Your task to perform on an android device: change keyboard looks Image 0: 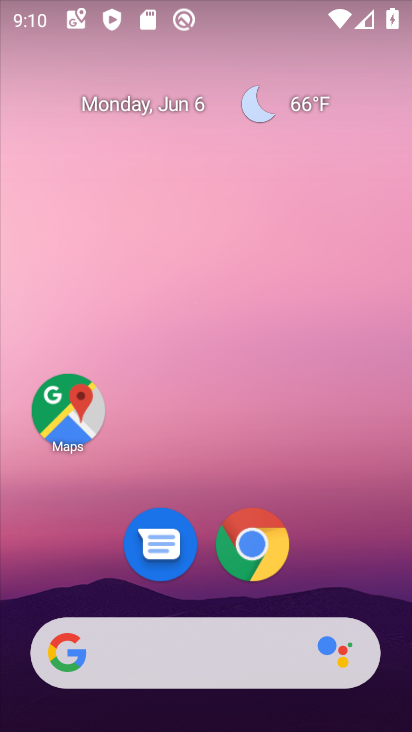
Step 0: drag from (212, 583) to (245, 169)
Your task to perform on an android device: change keyboard looks Image 1: 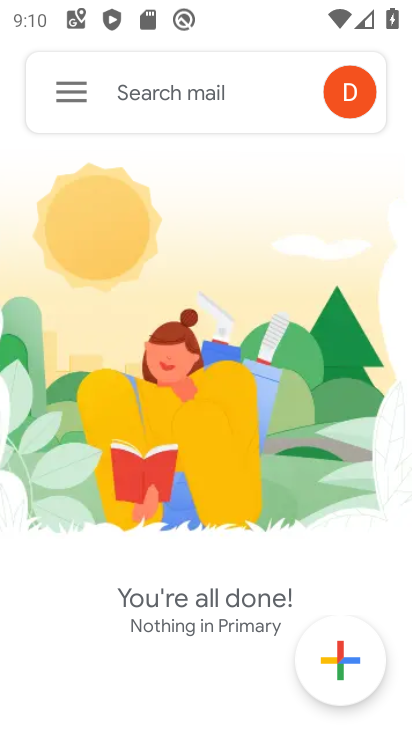
Step 1: press home button
Your task to perform on an android device: change keyboard looks Image 2: 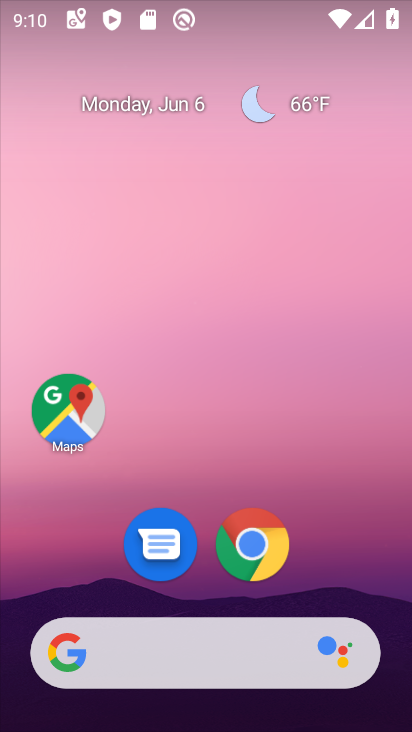
Step 2: drag from (220, 563) to (273, 268)
Your task to perform on an android device: change keyboard looks Image 3: 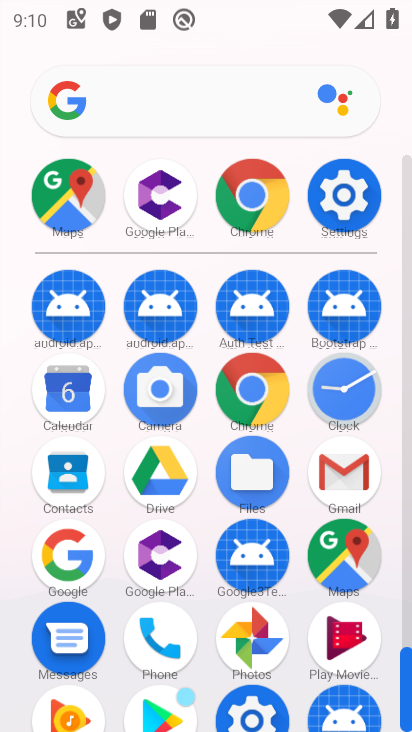
Step 3: click (358, 201)
Your task to perform on an android device: change keyboard looks Image 4: 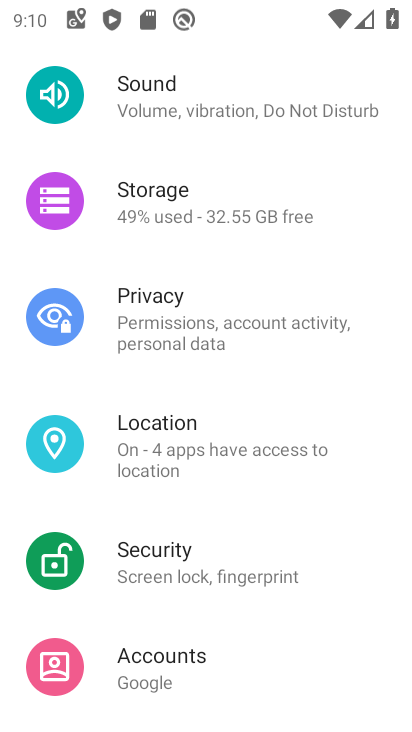
Step 4: drag from (196, 619) to (186, 351)
Your task to perform on an android device: change keyboard looks Image 5: 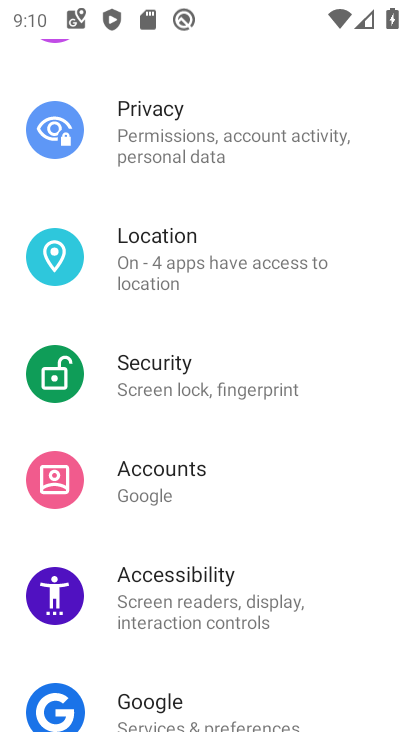
Step 5: drag from (179, 590) to (225, 234)
Your task to perform on an android device: change keyboard looks Image 6: 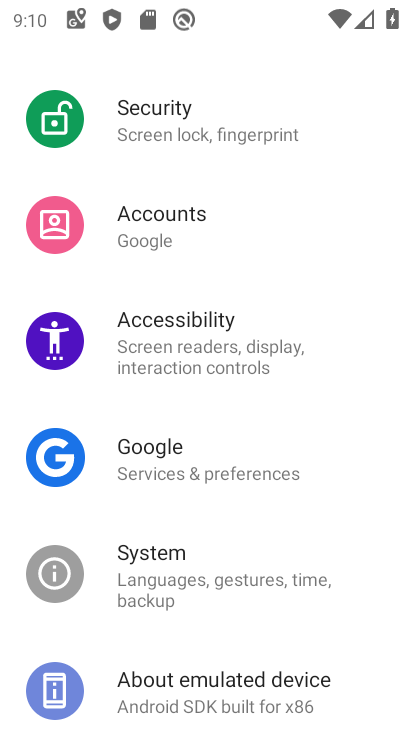
Step 6: click (160, 579)
Your task to perform on an android device: change keyboard looks Image 7: 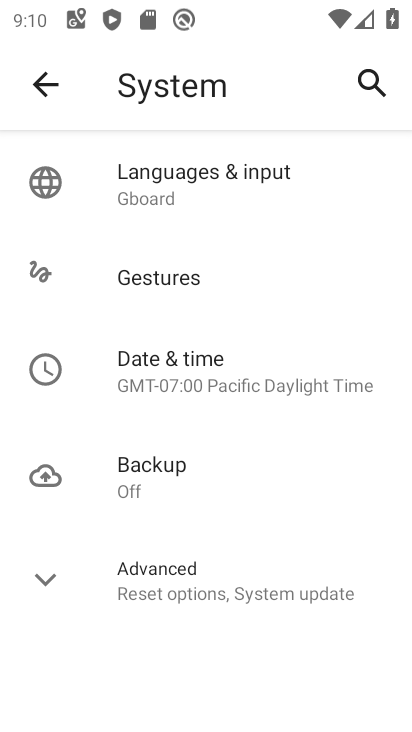
Step 7: click (240, 187)
Your task to perform on an android device: change keyboard looks Image 8: 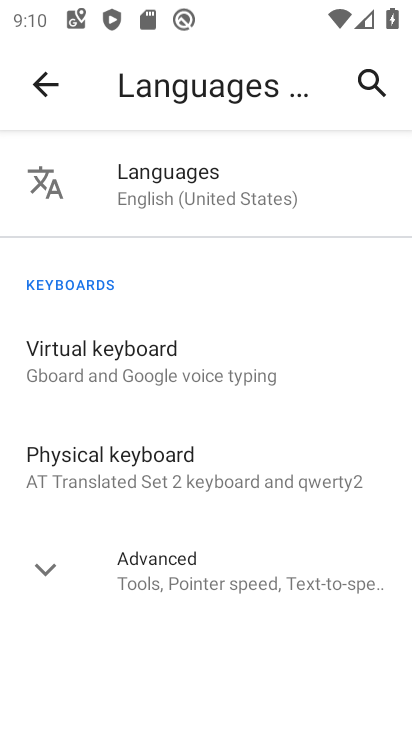
Step 8: click (151, 376)
Your task to perform on an android device: change keyboard looks Image 9: 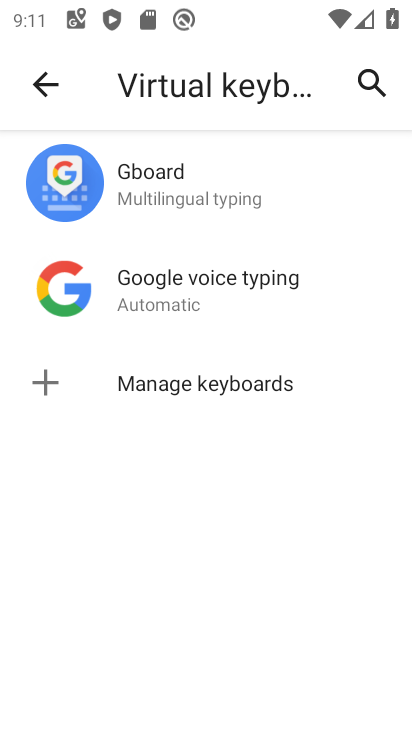
Step 9: click (196, 214)
Your task to perform on an android device: change keyboard looks Image 10: 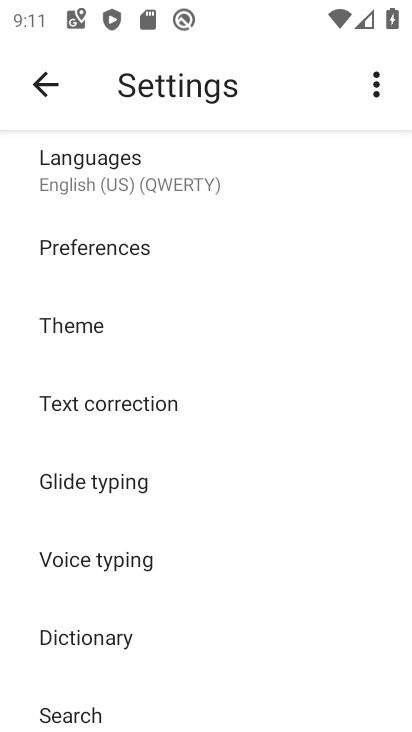
Step 10: click (183, 191)
Your task to perform on an android device: change keyboard looks Image 11: 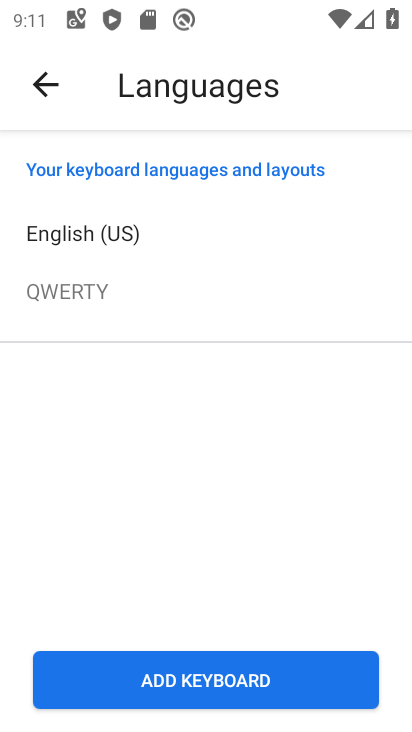
Step 11: click (232, 679)
Your task to perform on an android device: change keyboard looks Image 12: 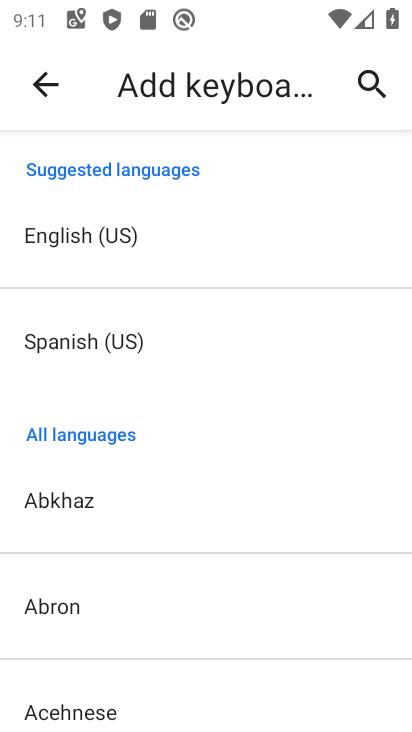
Step 12: click (103, 236)
Your task to perform on an android device: change keyboard looks Image 13: 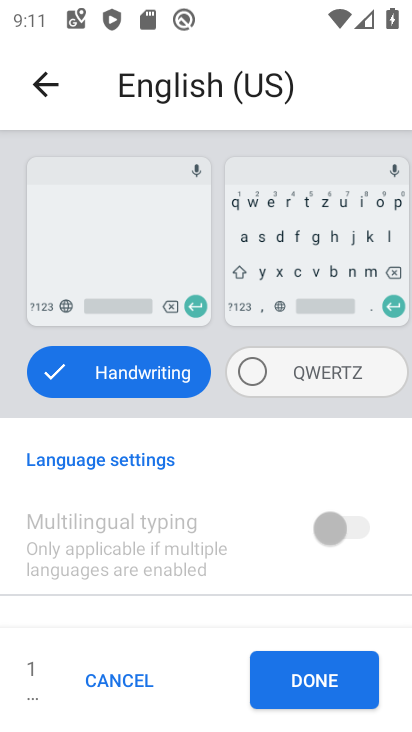
Step 13: task complete